Your task to perform on an android device: Is it going to rain tomorrow? Image 0: 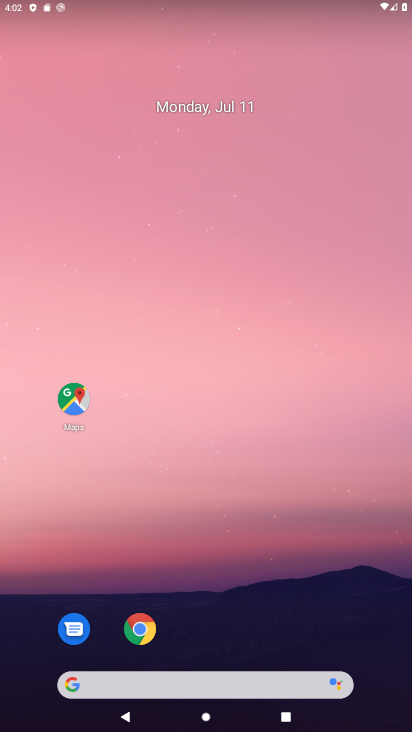
Step 0: click (150, 622)
Your task to perform on an android device: Is it going to rain tomorrow? Image 1: 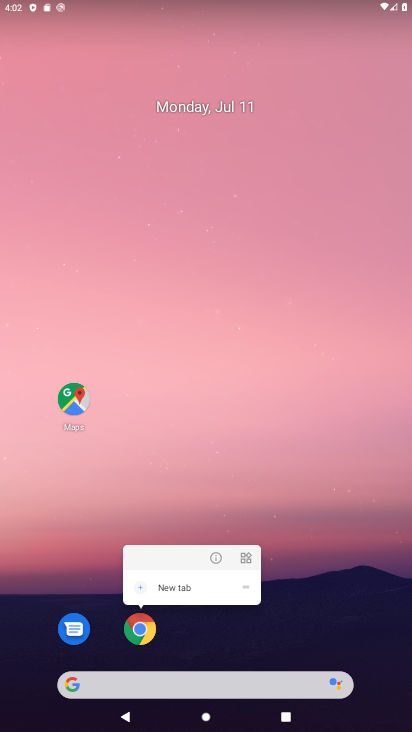
Step 1: click (144, 619)
Your task to perform on an android device: Is it going to rain tomorrow? Image 2: 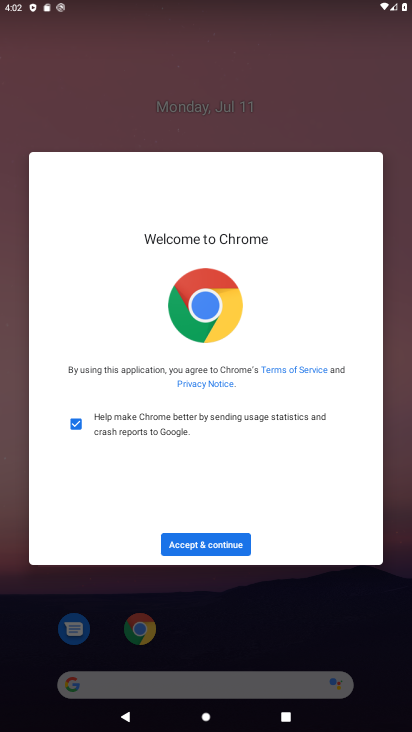
Step 2: click (174, 538)
Your task to perform on an android device: Is it going to rain tomorrow? Image 3: 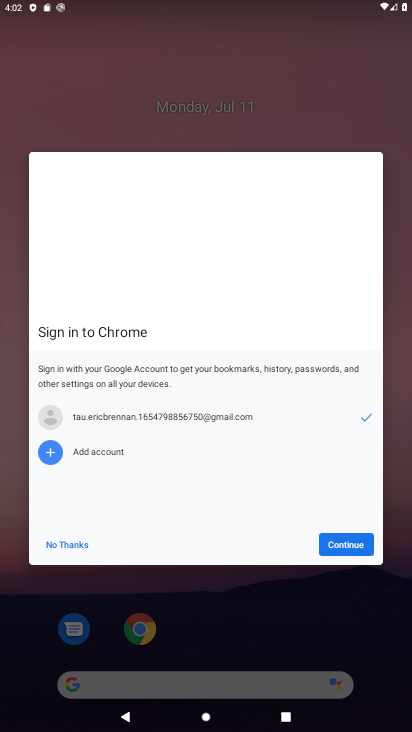
Step 3: click (346, 549)
Your task to perform on an android device: Is it going to rain tomorrow? Image 4: 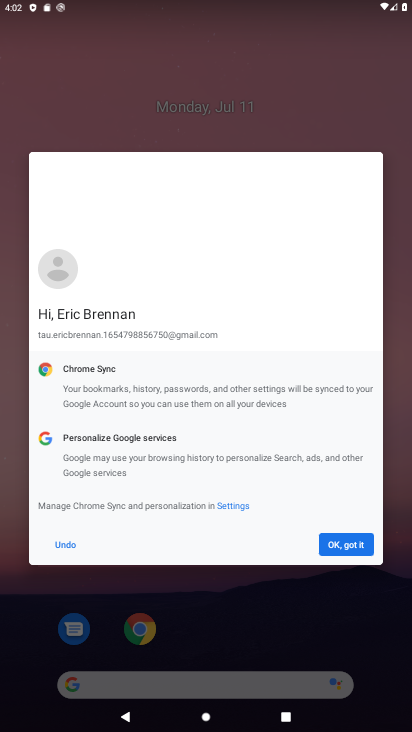
Step 4: click (355, 538)
Your task to perform on an android device: Is it going to rain tomorrow? Image 5: 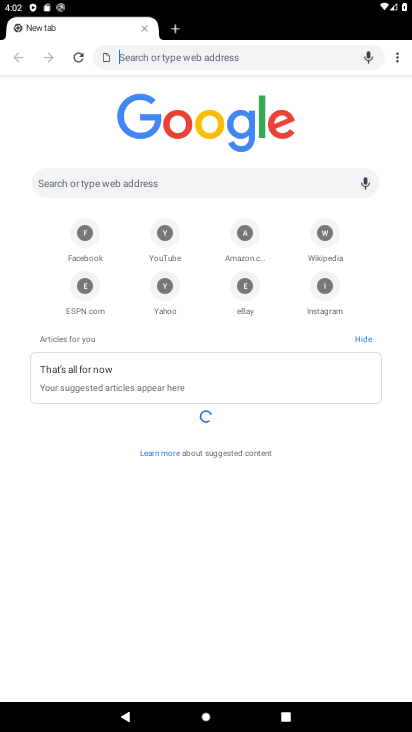
Step 5: click (137, 184)
Your task to perform on an android device: Is it going to rain tomorrow? Image 6: 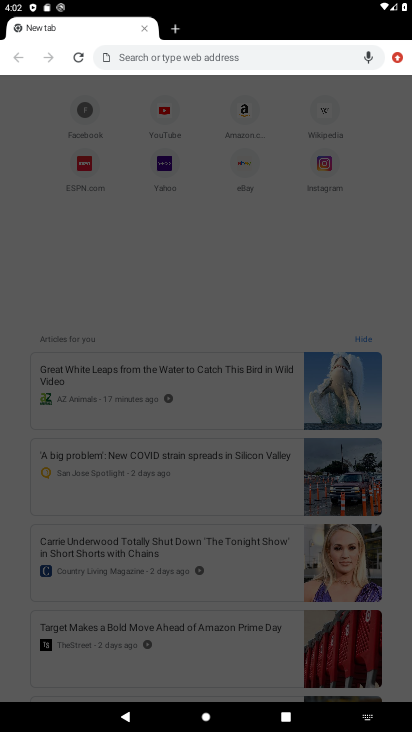
Step 6: type "weather"
Your task to perform on an android device: Is it going to rain tomorrow? Image 7: 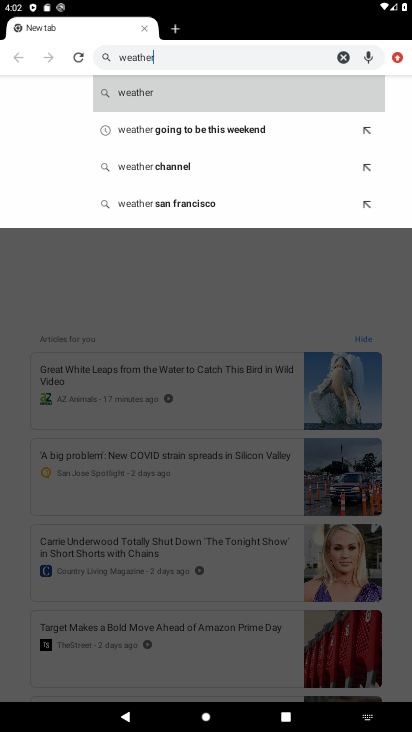
Step 7: click (110, 87)
Your task to perform on an android device: Is it going to rain tomorrow? Image 8: 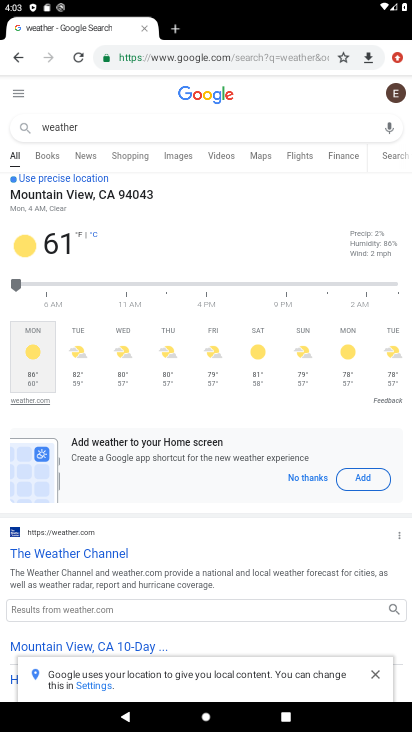
Step 8: click (73, 358)
Your task to perform on an android device: Is it going to rain tomorrow? Image 9: 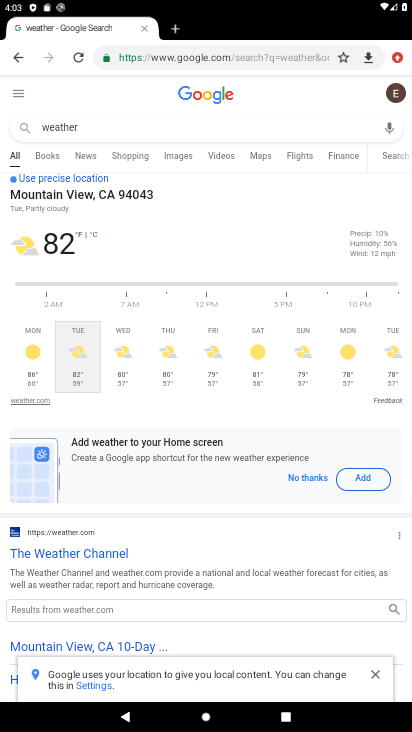
Step 9: task complete